Your task to perform on an android device: turn on javascript in the chrome app Image 0: 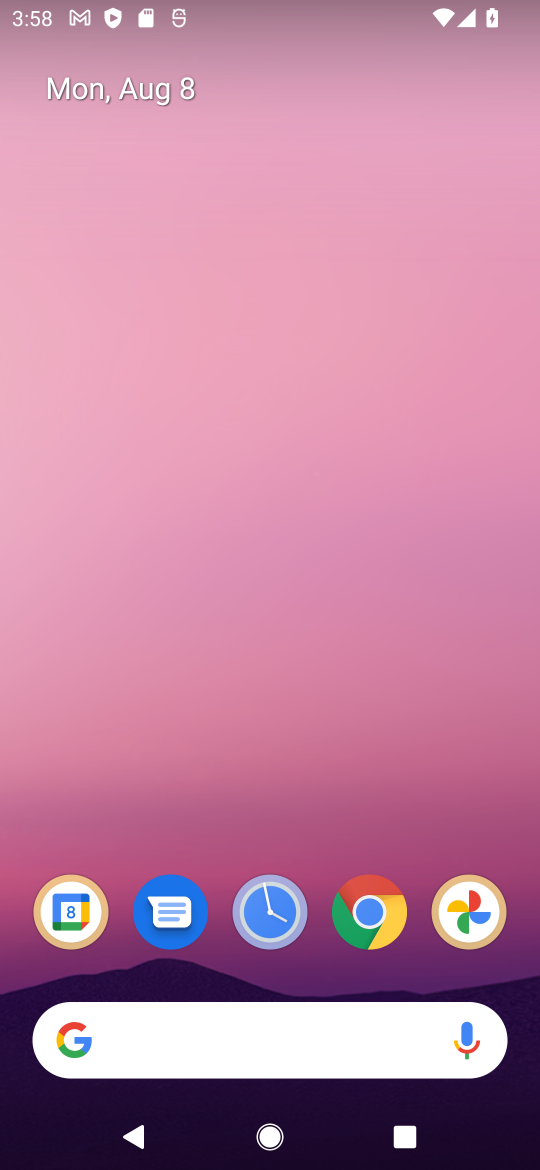
Step 0: press home button
Your task to perform on an android device: turn on javascript in the chrome app Image 1: 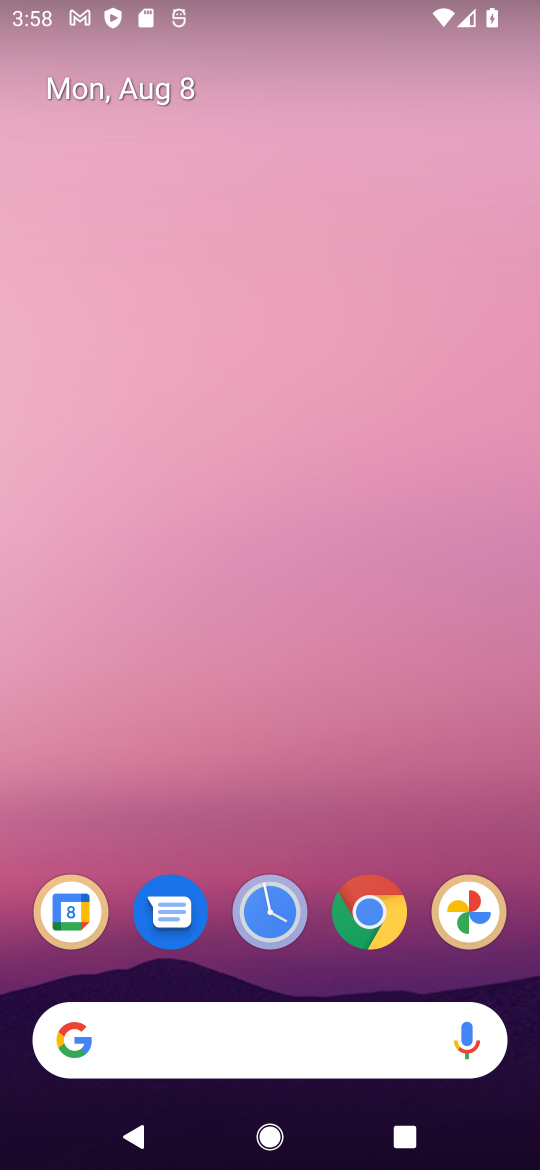
Step 1: click (371, 925)
Your task to perform on an android device: turn on javascript in the chrome app Image 2: 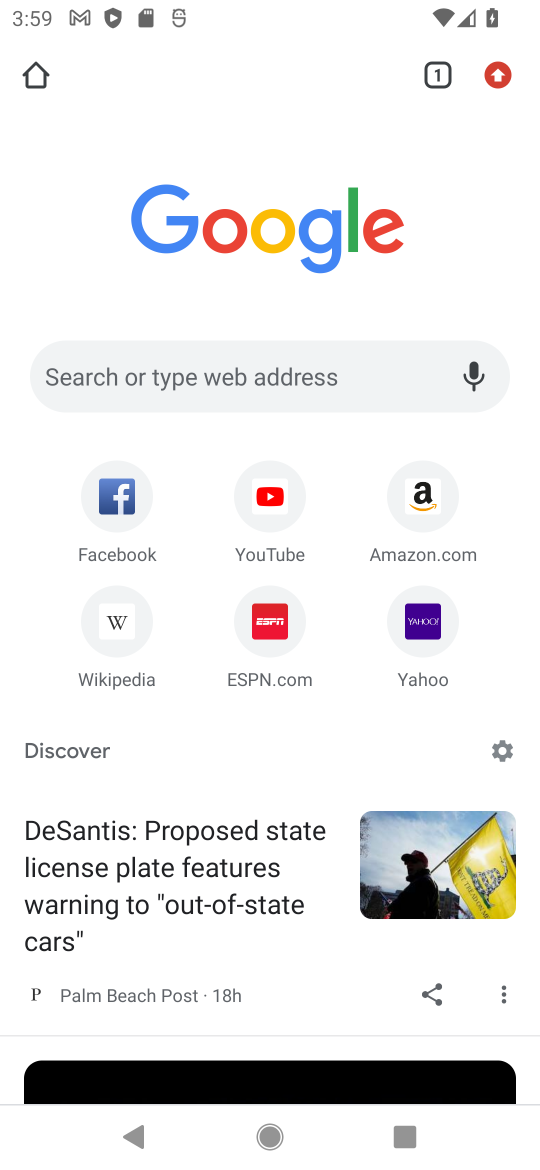
Step 2: click (486, 64)
Your task to perform on an android device: turn on javascript in the chrome app Image 3: 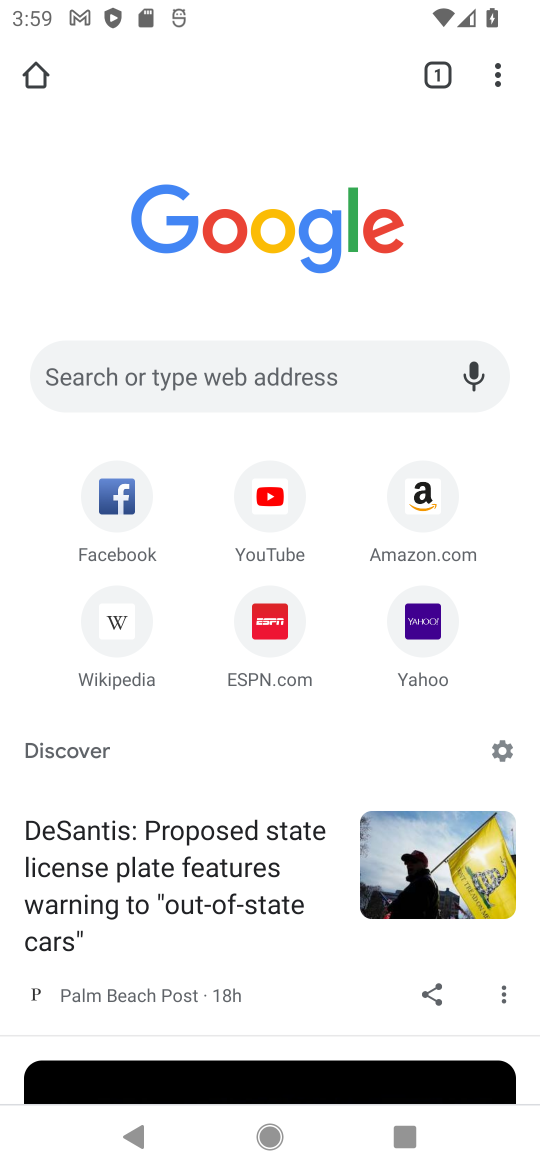
Step 3: click (505, 70)
Your task to perform on an android device: turn on javascript in the chrome app Image 4: 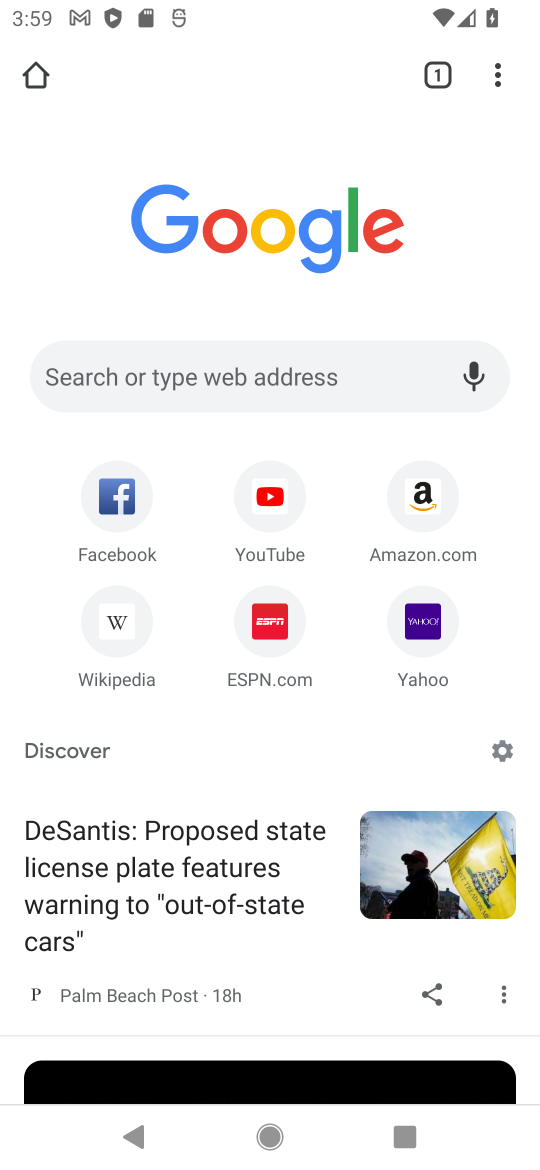
Step 4: click (496, 80)
Your task to perform on an android device: turn on javascript in the chrome app Image 5: 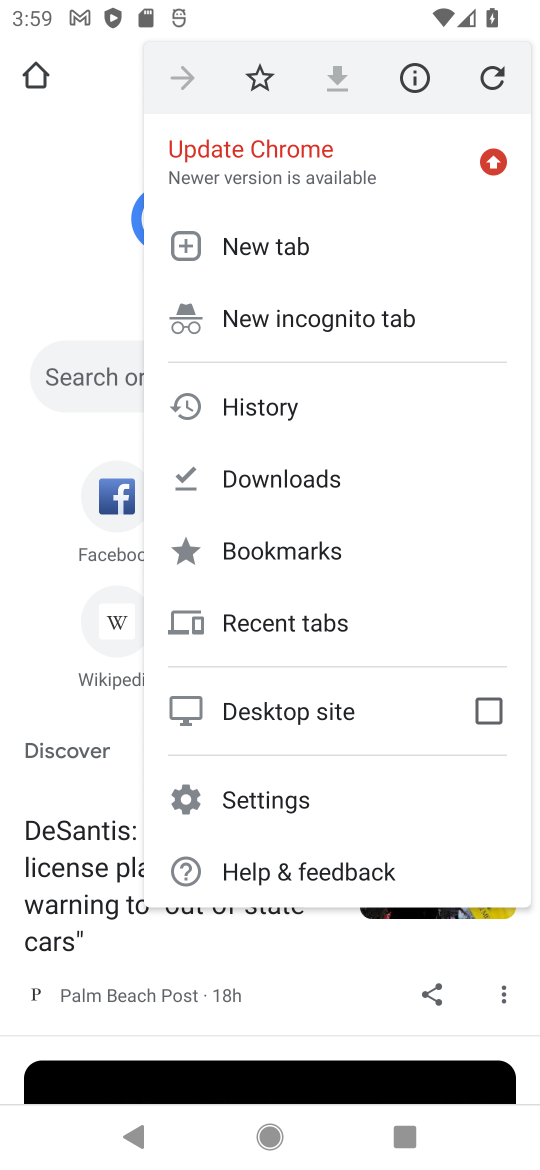
Step 5: click (229, 806)
Your task to perform on an android device: turn on javascript in the chrome app Image 6: 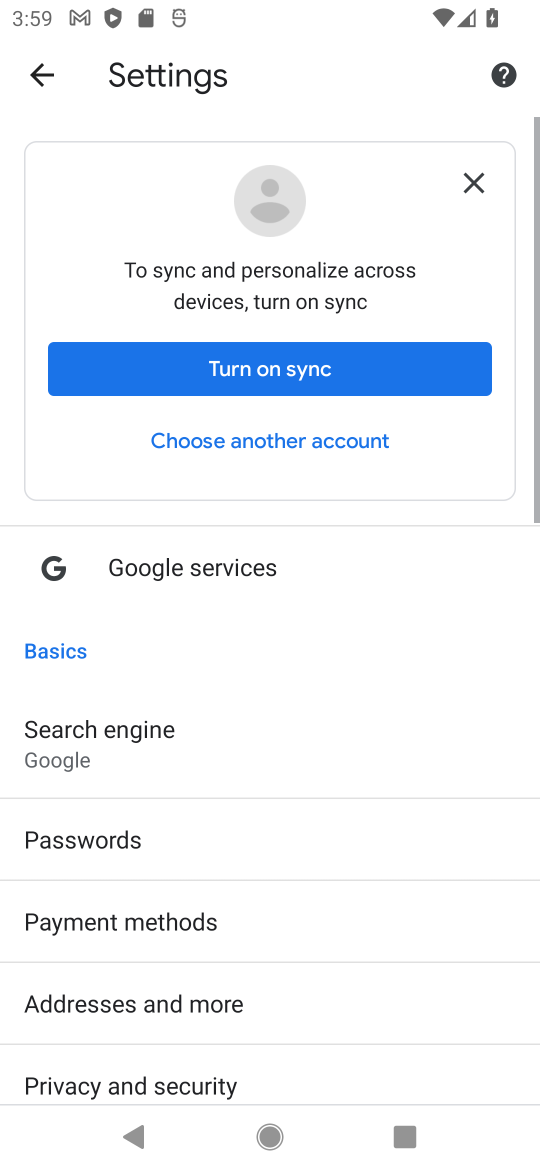
Step 6: drag from (18, 790) to (285, 130)
Your task to perform on an android device: turn on javascript in the chrome app Image 7: 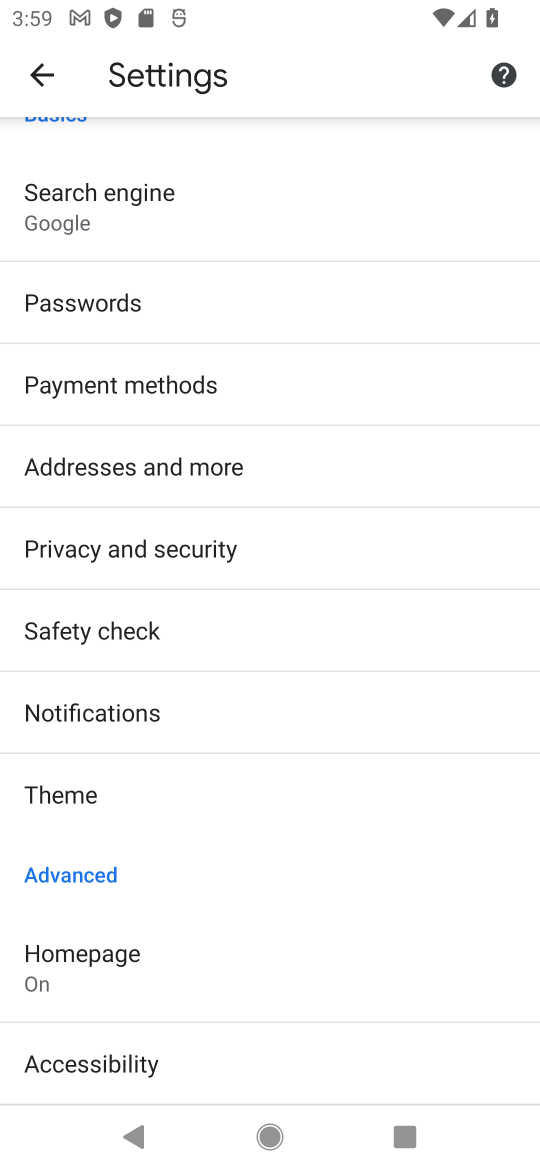
Step 7: drag from (58, 650) to (255, 200)
Your task to perform on an android device: turn on javascript in the chrome app Image 8: 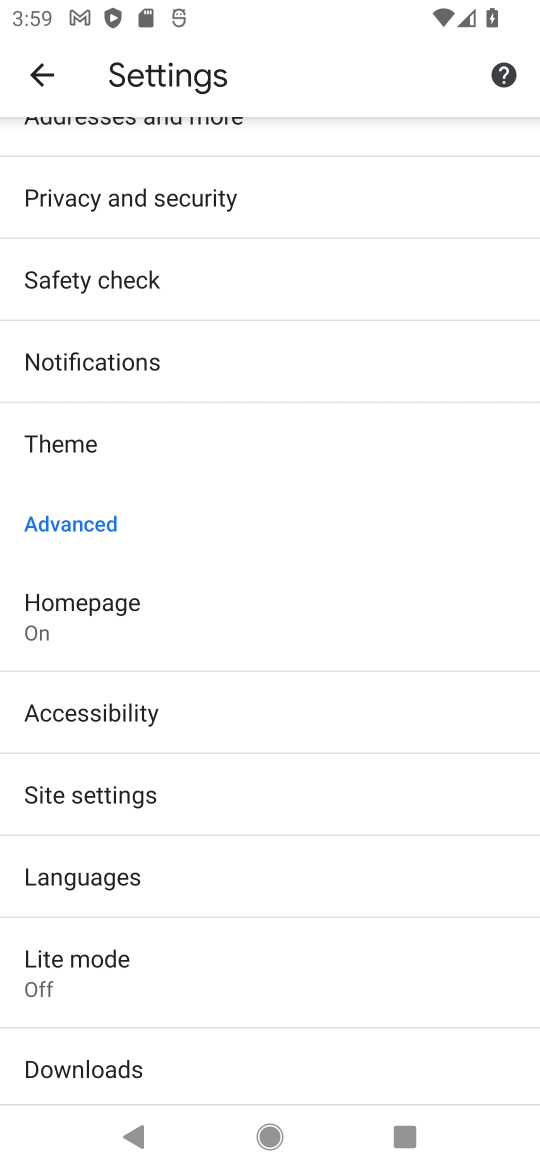
Step 8: click (131, 784)
Your task to perform on an android device: turn on javascript in the chrome app Image 9: 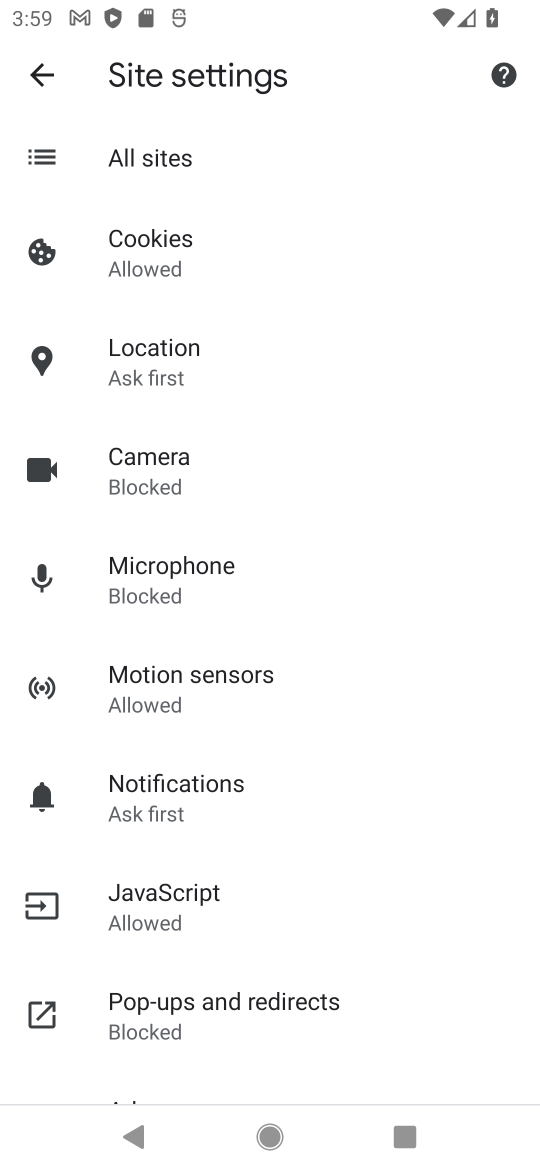
Step 9: click (198, 893)
Your task to perform on an android device: turn on javascript in the chrome app Image 10: 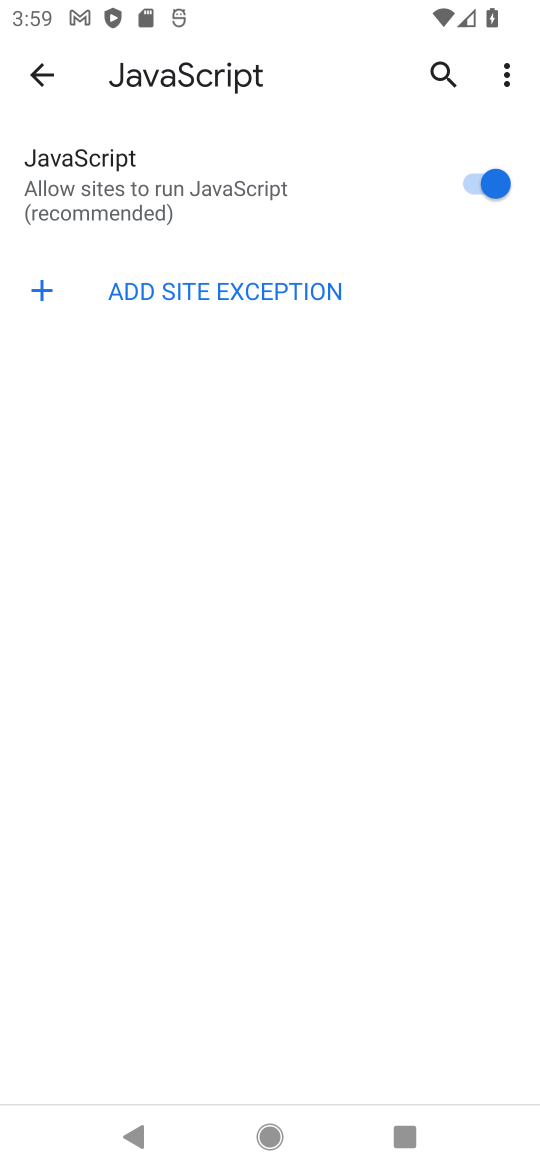
Step 10: task complete